Your task to perform on an android device: What's the weather? Image 0: 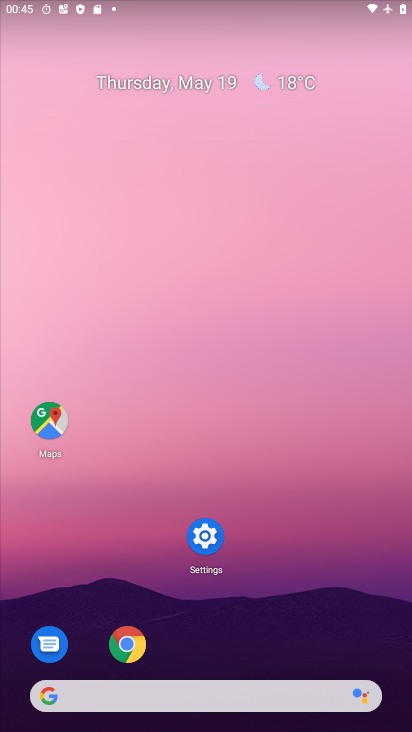
Step 0: click (297, 81)
Your task to perform on an android device: What's the weather? Image 1: 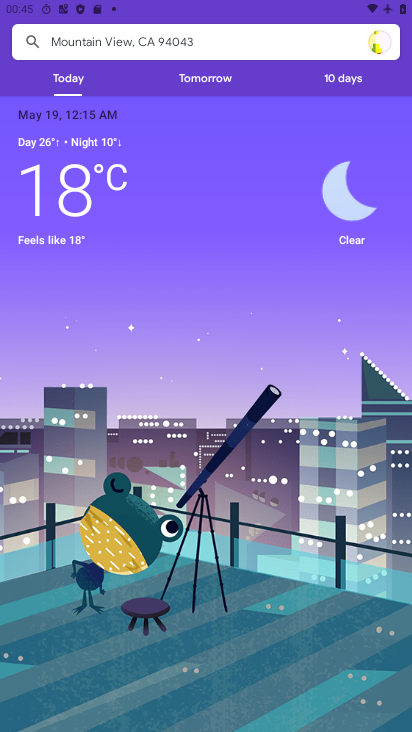
Step 1: task complete